Your task to perform on an android device: find snoozed emails in the gmail app Image 0: 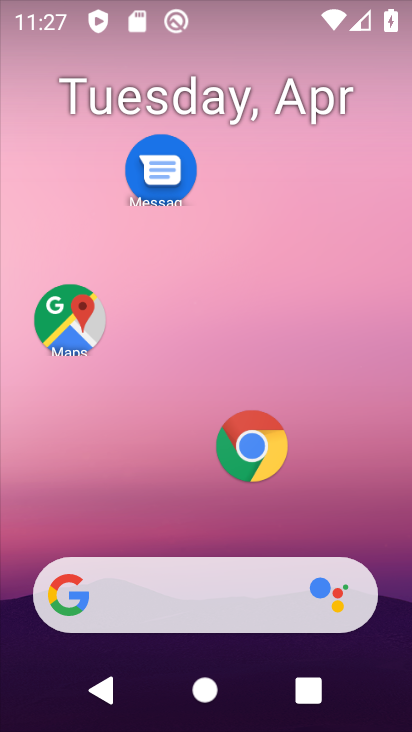
Step 0: drag from (325, 553) to (383, 59)
Your task to perform on an android device: find snoozed emails in the gmail app Image 1: 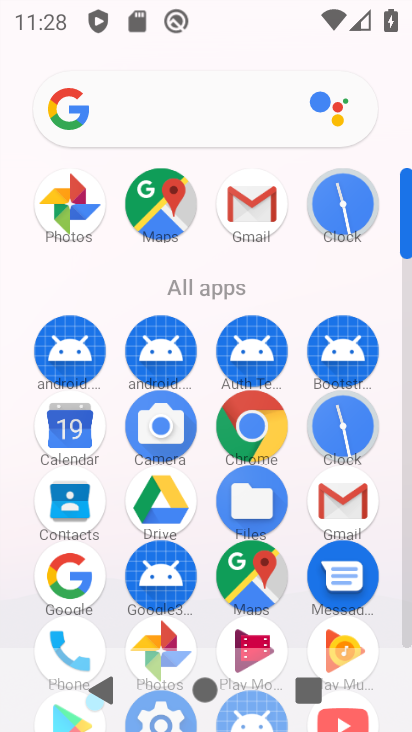
Step 1: click (345, 498)
Your task to perform on an android device: find snoozed emails in the gmail app Image 2: 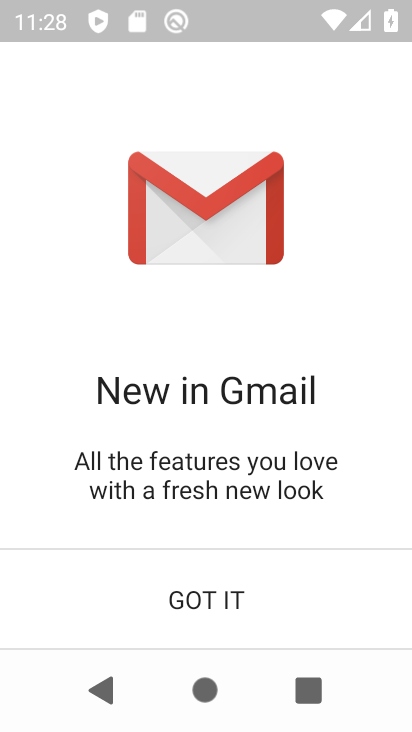
Step 2: click (238, 606)
Your task to perform on an android device: find snoozed emails in the gmail app Image 3: 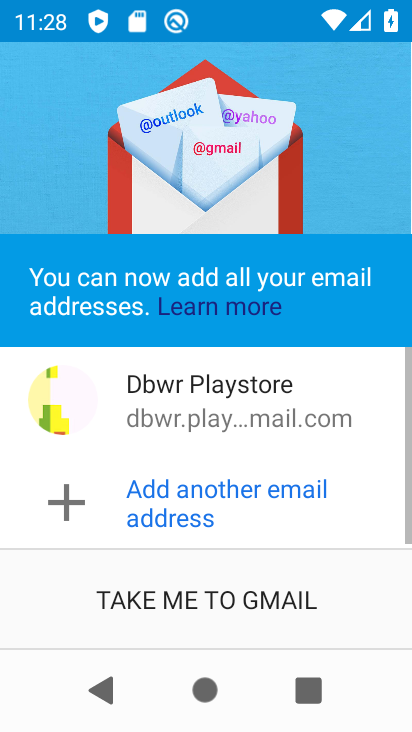
Step 3: click (238, 606)
Your task to perform on an android device: find snoozed emails in the gmail app Image 4: 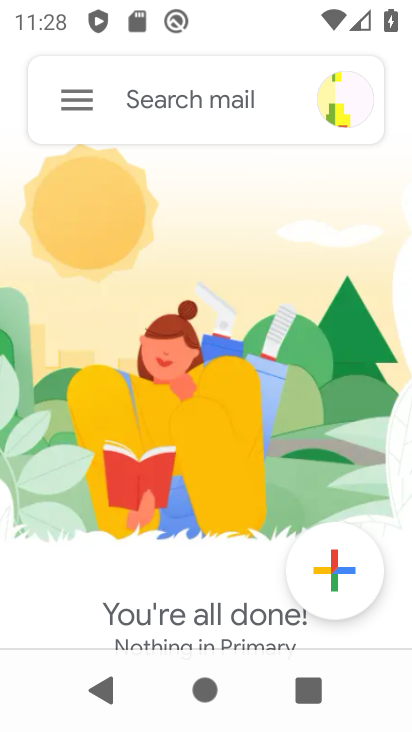
Step 4: click (80, 107)
Your task to perform on an android device: find snoozed emails in the gmail app Image 5: 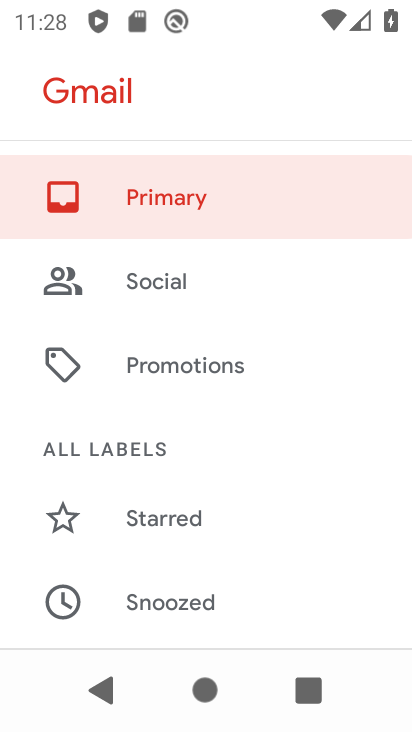
Step 5: drag from (269, 562) to (302, 196)
Your task to perform on an android device: find snoozed emails in the gmail app Image 6: 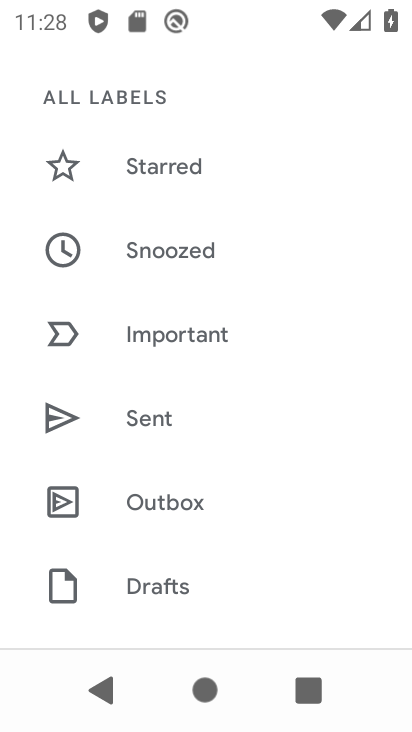
Step 6: click (196, 240)
Your task to perform on an android device: find snoozed emails in the gmail app Image 7: 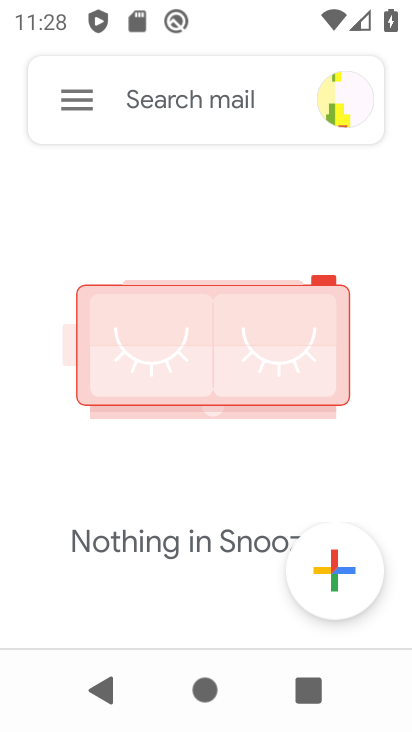
Step 7: task complete